Your task to perform on an android device: Open my contact list Image 0: 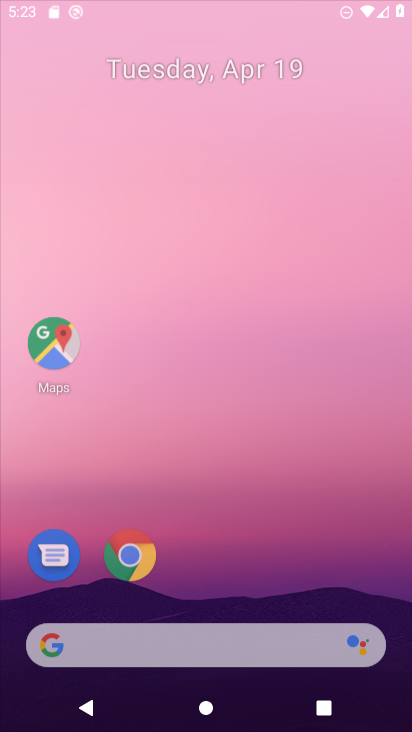
Step 0: click (212, 30)
Your task to perform on an android device: Open my contact list Image 1: 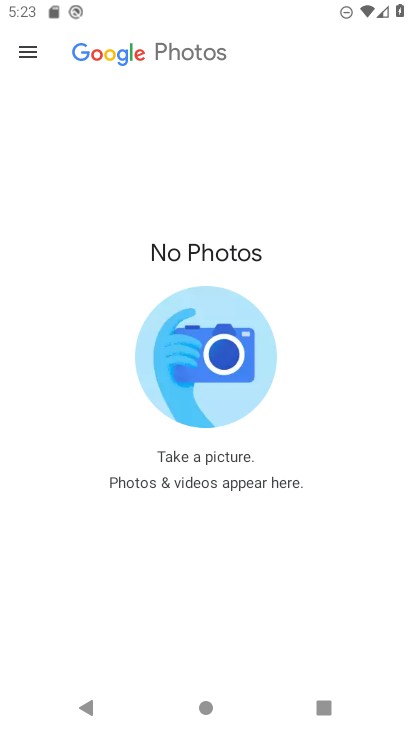
Step 1: press back button
Your task to perform on an android device: Open my contact list Image 2: 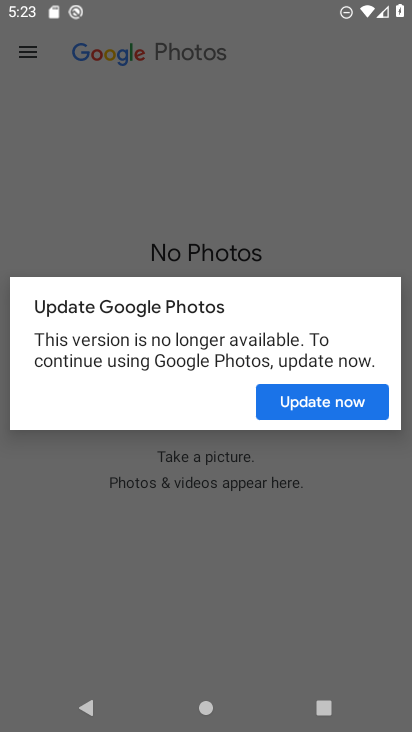
Step 2: press back button
Your task to perform on an android device: Open my contact list Image 3: 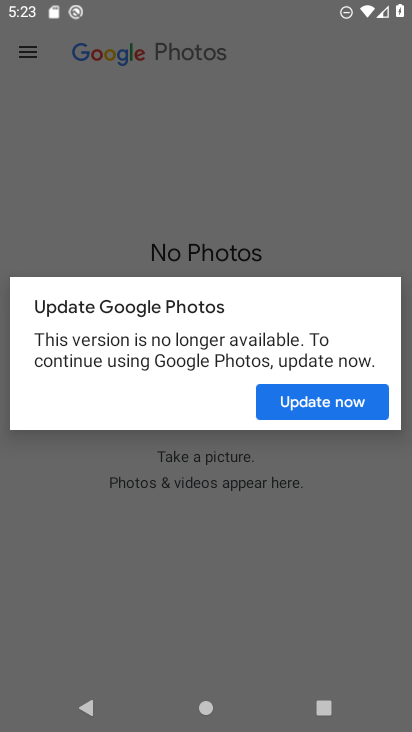
Step 3: press home button
Your task to perform on an android device: Open my contact list Image 4: 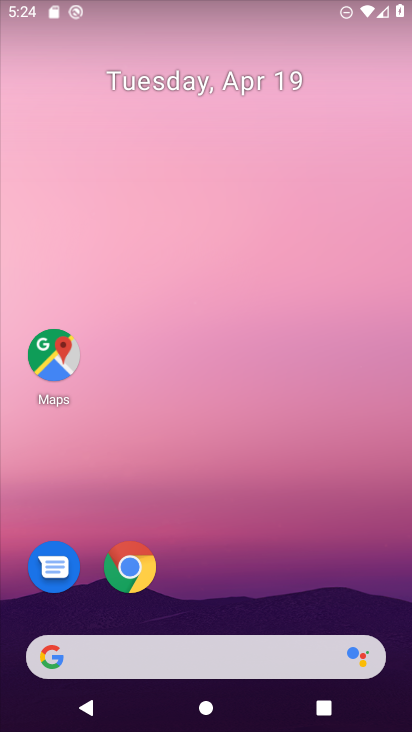
Step 4: drag from (270, 410) to (261, 9)
Your task to perform on an android device: Open my contact list Image 5: 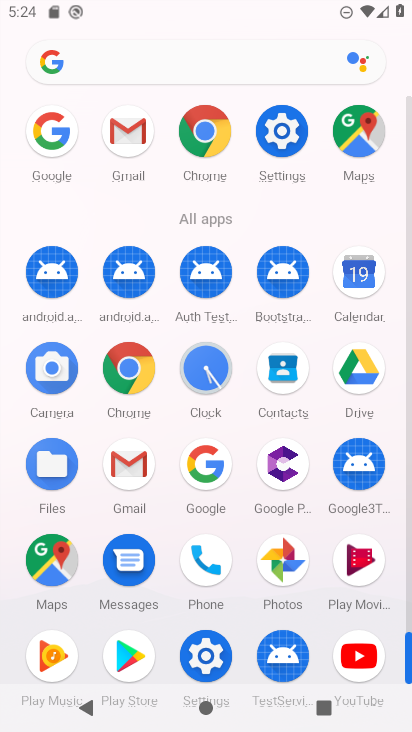
Step 5: click (272, 361)
Your task to perform on an android device: Open my contact list Image 6: 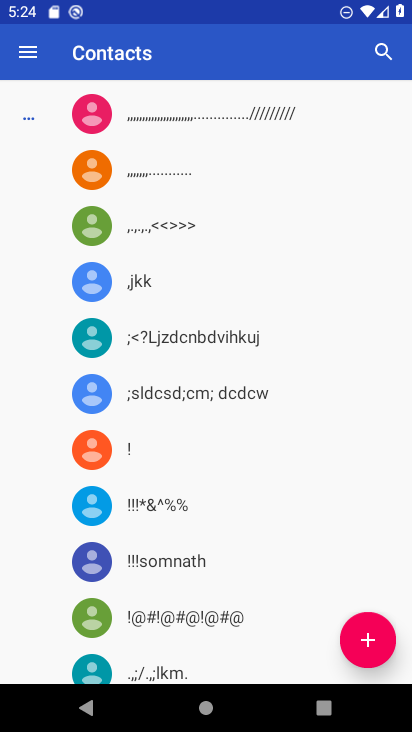
Step 6: task complete